Your task to perform on an android device: read, delete, or share a saved page in the chrome app Image 0: 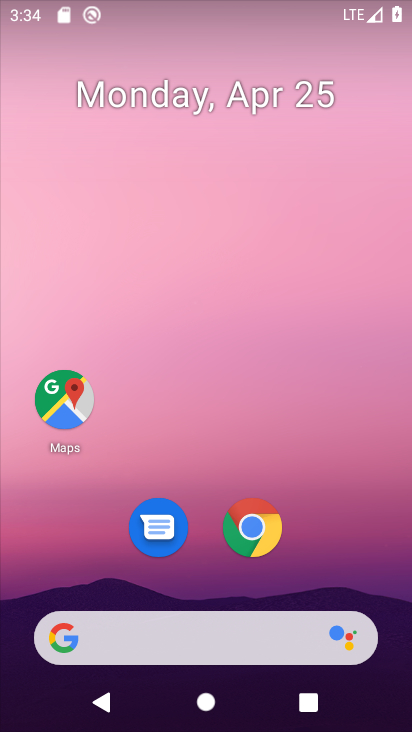
Step 0: click (250, 529)
Your task to perform on an android device: read, delete, or share a saved page in the chrome app Image 1: 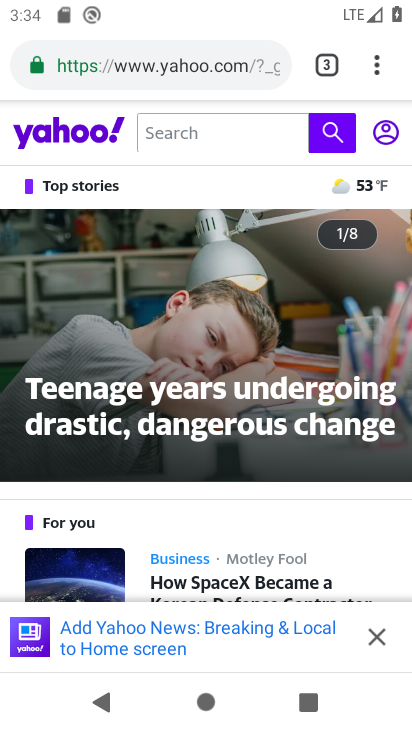
Step 1: click (376, 69)
Your task to perform on an android device: read, delete, or share a saved page in the chrome app Image 2: 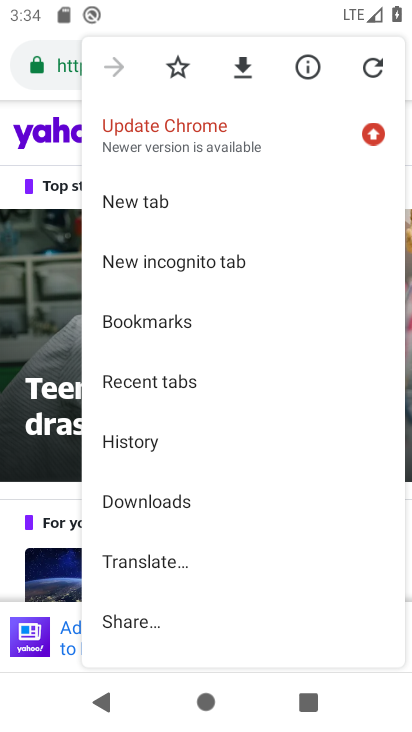
Step 2: click (148, 496)
Your task to perform on an android device: read, delete, or share a saved page in the chrome app Image 3: 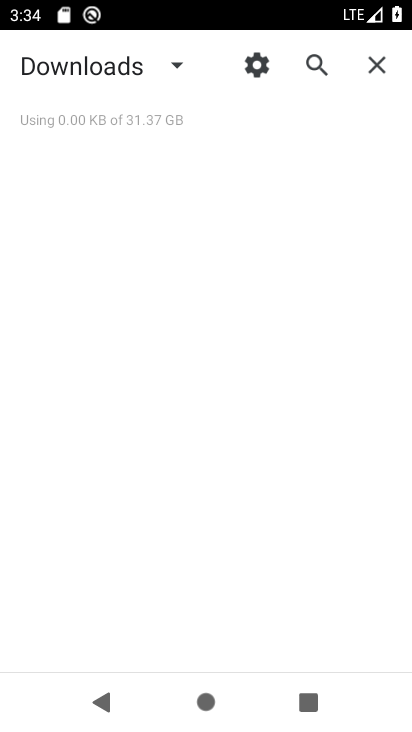
Step 3: click (176, 70)
Your task to perform on an android device: read, delete, or share a saved page in the chrome app Image 4: 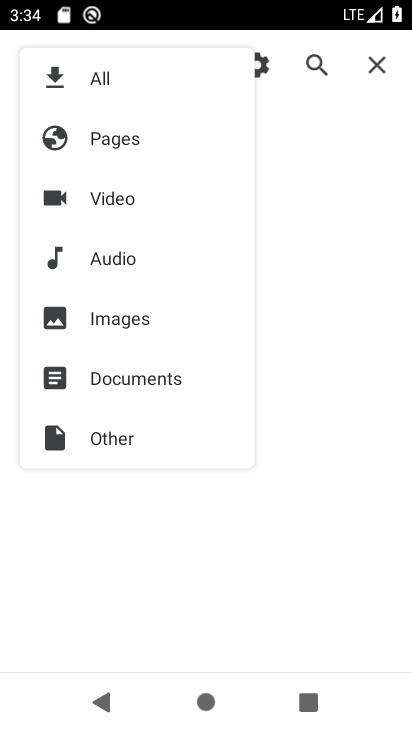
Step 4: click (99, 139)
Your task to perform on an android device: read, delete, or share a saved page in the chrome app Image 5: 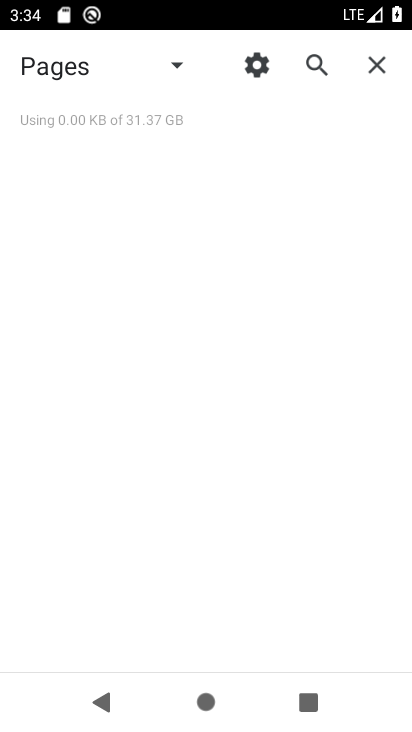
Step 5: task complete